Your task to perform on an android device: toggle location history Image 0: 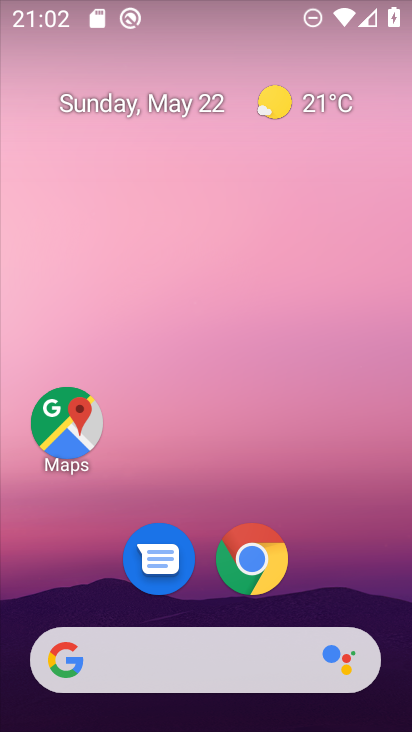
Step 0: drag from (311, 698) to (270, 218)
Your task to perform on an android device: toggle location history Image 1: 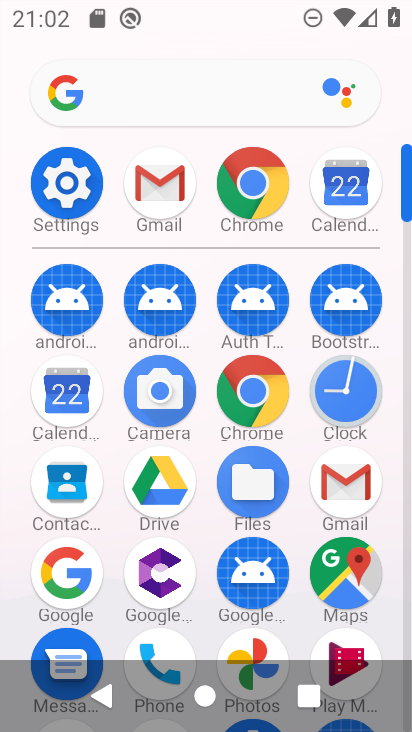
Step 1: click (72, 186)
Your task to perform on an android device: toggle location history Image 2: 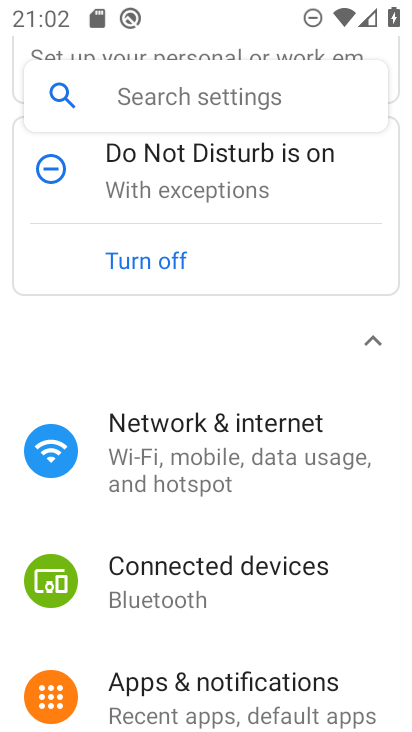
Step 2: click (201, 115)
Your task to perform on an android device: toggle location history Image 3: 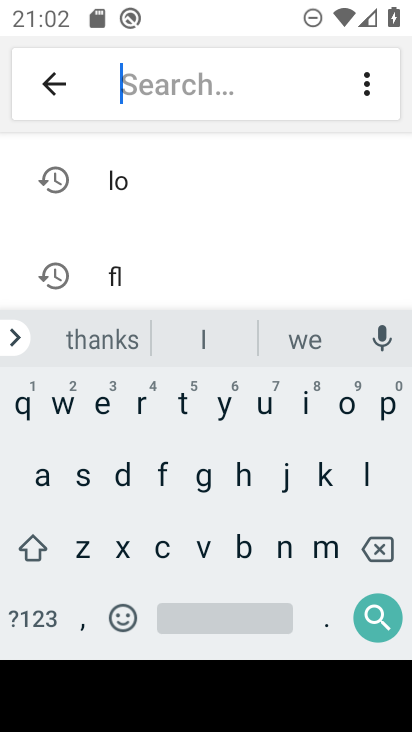
Step 3: click (153, 190)
Your task to perform on an android device: toggle location history Image 4: 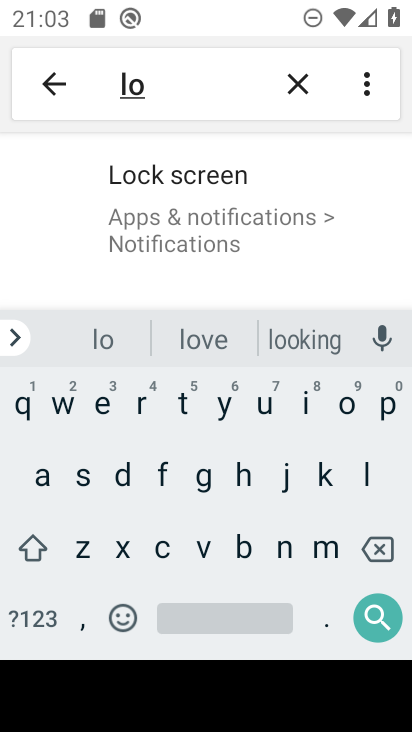
Step 4: drag from (213, 233) to (210, 134)
Your task to perform on an android device: toggle location history Image 5: 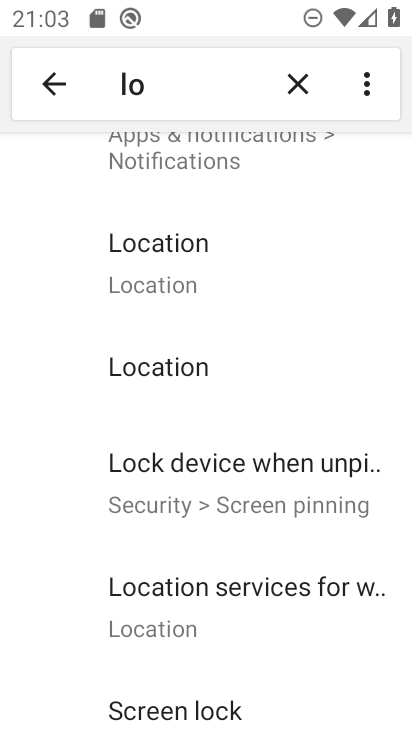
Step 5: click (217, 267)
Your task to perform on an android device: toggle location history Image 6: 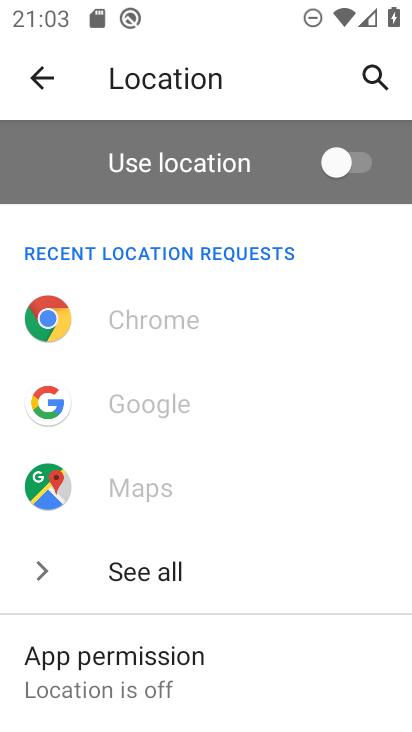
Step 6: drag from (127, 591) to (206, 255)
Your task to perform on an android device: toggle location history Image 7: 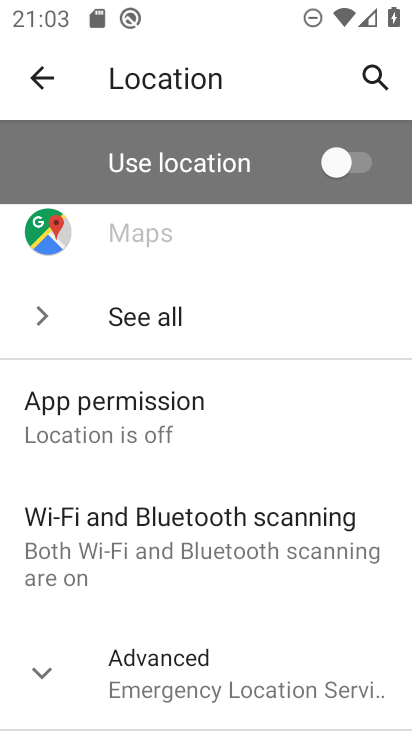
Step 7: click (90, 662)
Your task to perform on an android device: toggle location history Image 8: 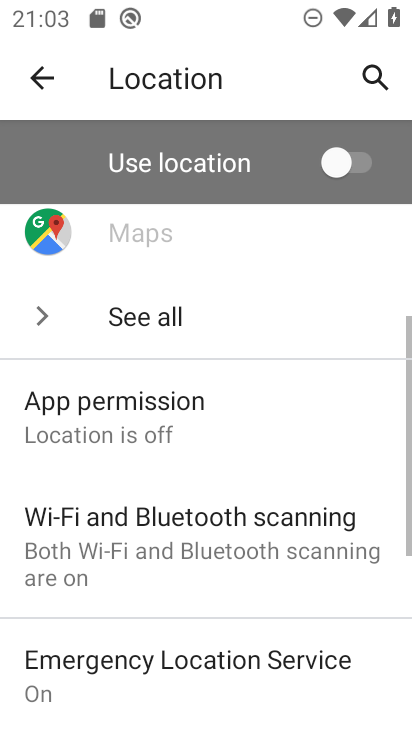
Step 8: drag from (143, 615) to (201, 330)
Your task to perform on an android device: toggle location history Image 9: 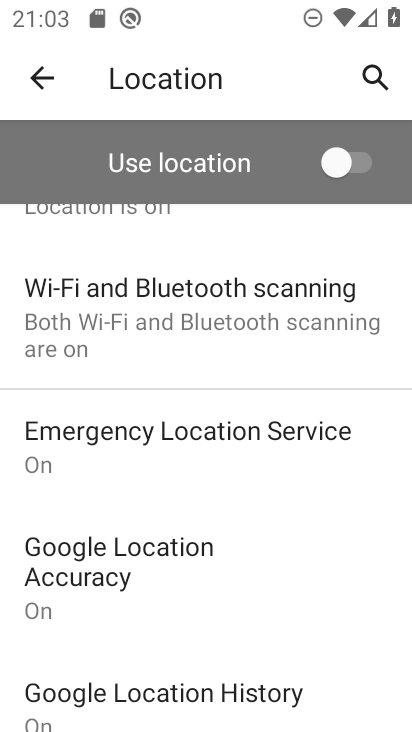
Step 9: click (151, 678)
Your task to perform on an android device: toggle location history Image 10: 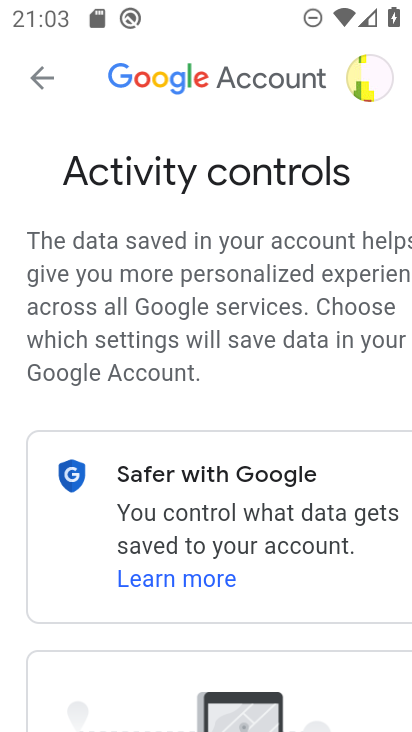
Step 10: task complete